Your task to perform on an android device: turn notification dots off Image 0: 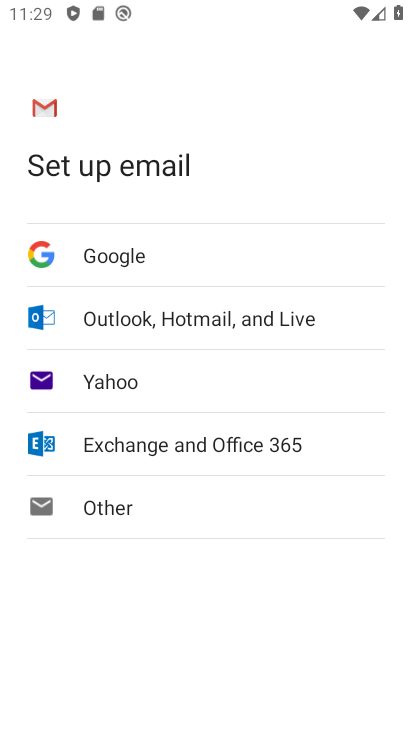
Step 0: press home button
Your task to perform on an android device: turn notification dots off Image 1: 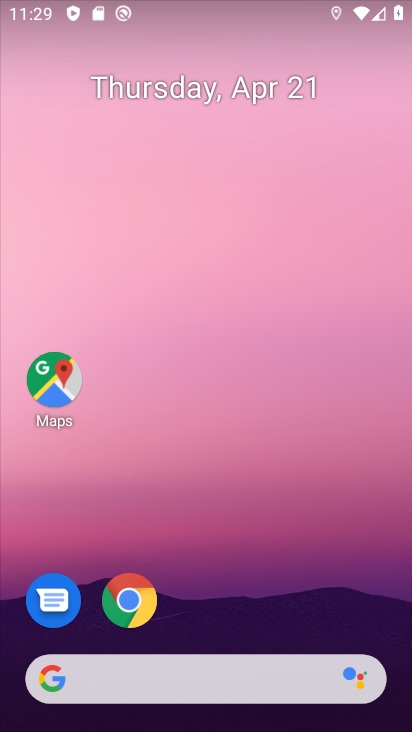
Step 1: drag from (262, 622) to (217, 47)
Your task to perform on an android device: turn notification dots off Image 2: 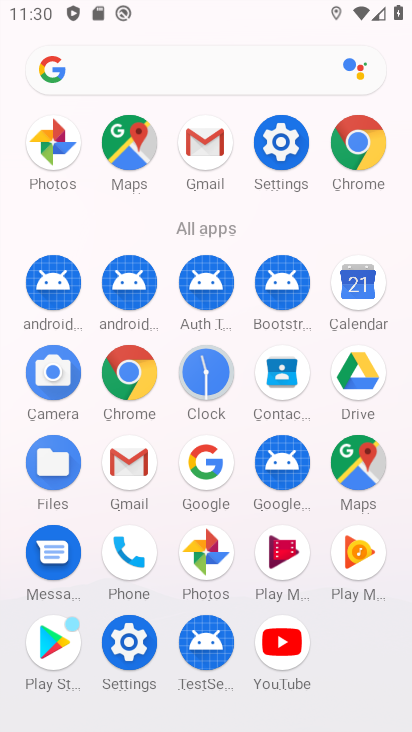
Step 2: drag from (343, 675) to (333, 560)
Your task to perform on an android device: turn notification dots off Image 3: 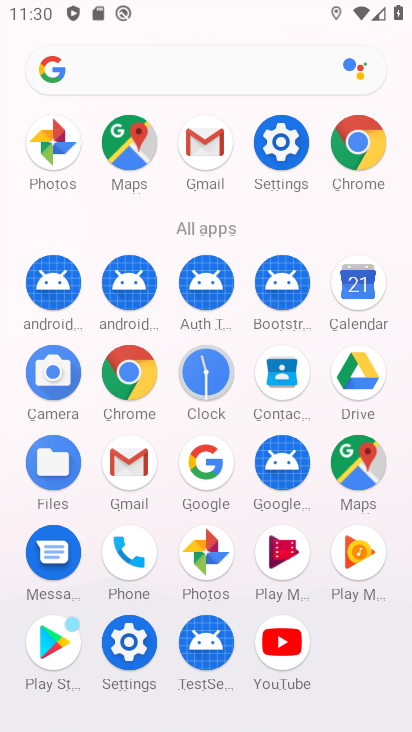
Step 3: click (125, 659)
Your task to perform on an android device: turn notification dots off Image 4: 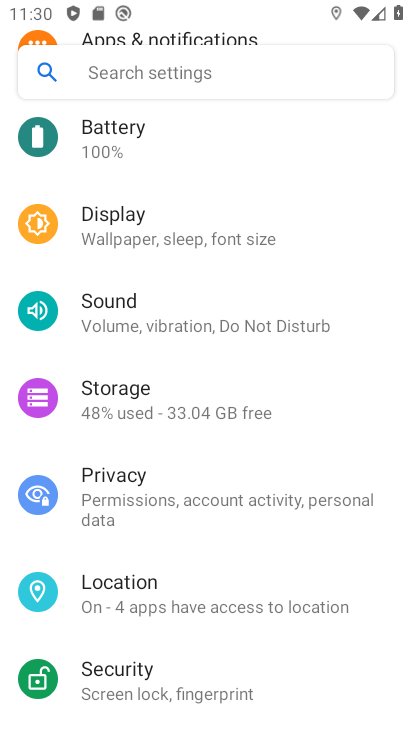
Step 4: drag from (215, 603) to (145, 128)
Your task to perform on an android device: turn notification dots off Image 5: 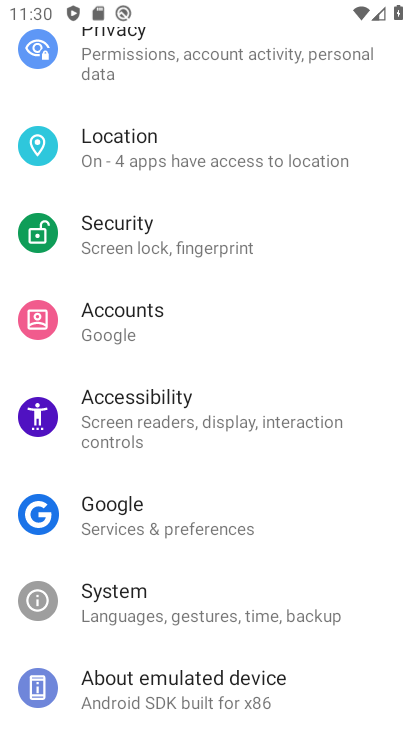
Step 5: drag from (179, 133) to (113, 686)
Your task to perform on an android device: turn notification dots off Image 6: 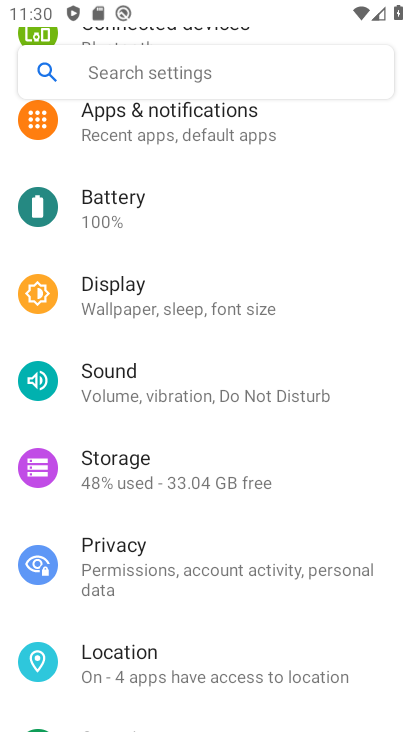
Step 6: click (98, 118)
Your task to perform on an android device: turn notification dots off Image 7: 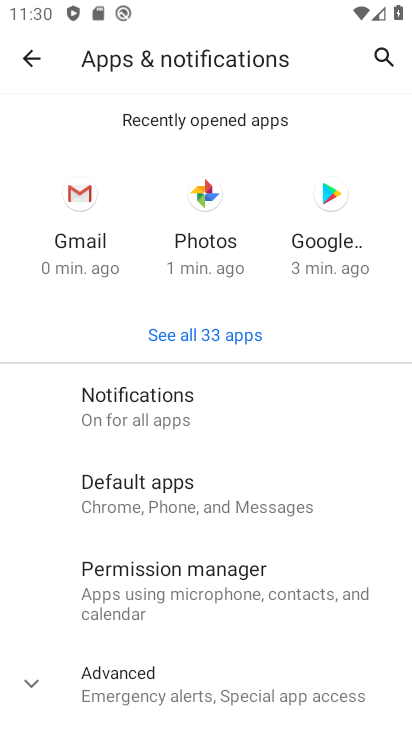
Step 7: click (139, 423)
Your task to perform on an android device: turn notification dots off Image 8: 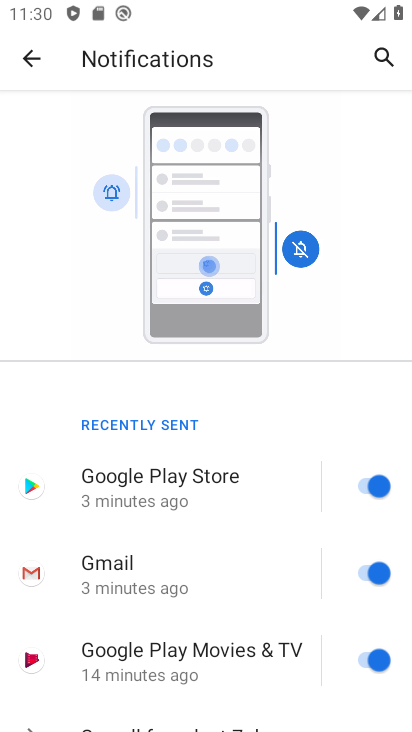
Step 8: drag from (180, 600) to (139, 182)
Your task to perform on an android device: turn notification dots off Image 9: 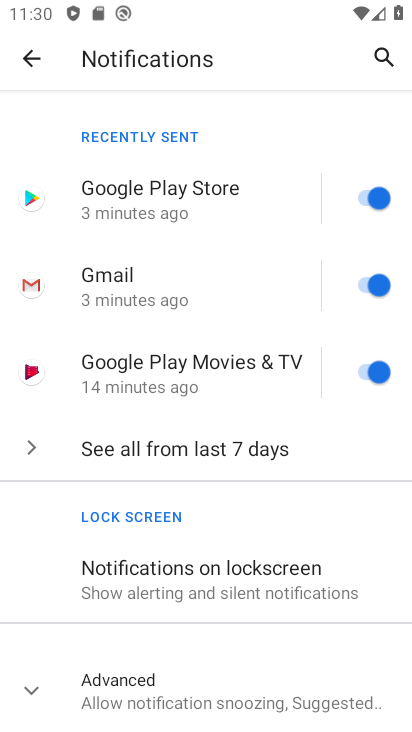
Step 9: click (166, 678)
Your task to perform on an android device: turn notification dots off Image 10: 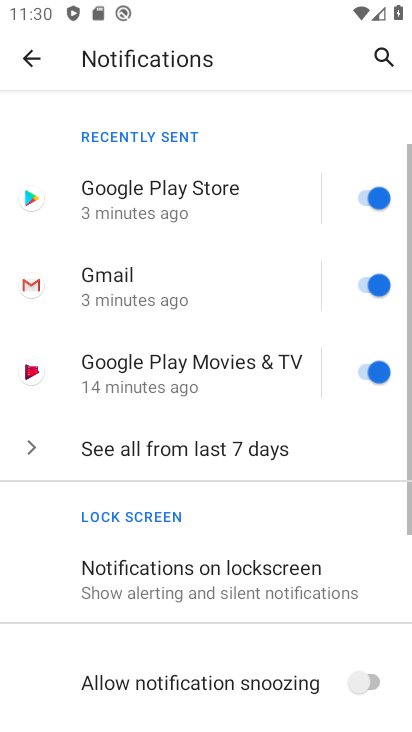
Step 10: drag from (159, 588) to (126, 316)
Your task to perform on an android device: turn notification dots off Image 11: 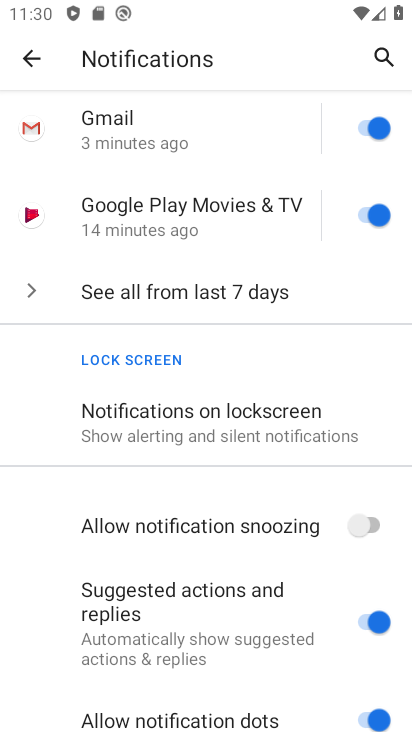
Step 11: click (363, 723)
Your task to perform on an android device: turn notification dots off Image 12: 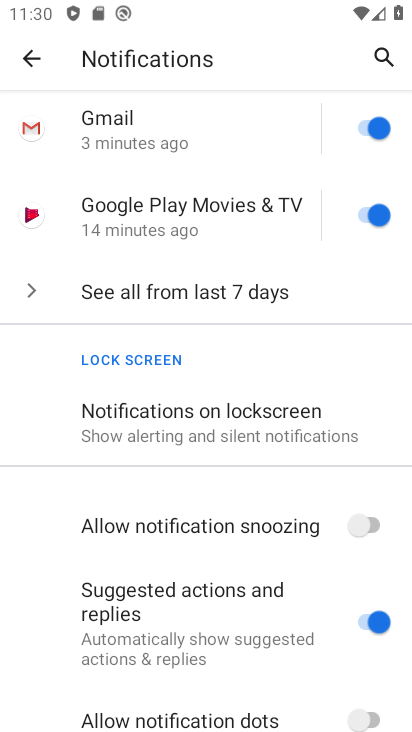
Step 12: task complete